Your task to perform on an android device: turn on priority inbox in the gmail app Image 0: 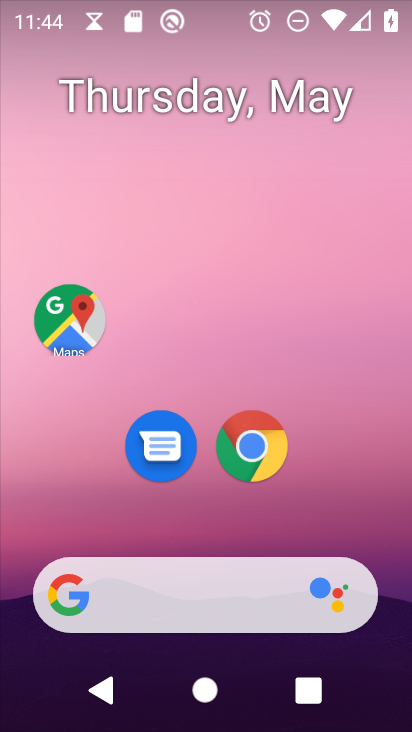
Step 0: drag from (217, 619) to (132, 354)
Your task to perform on an android device: turn on priority inbox in the gmail app Image 1: 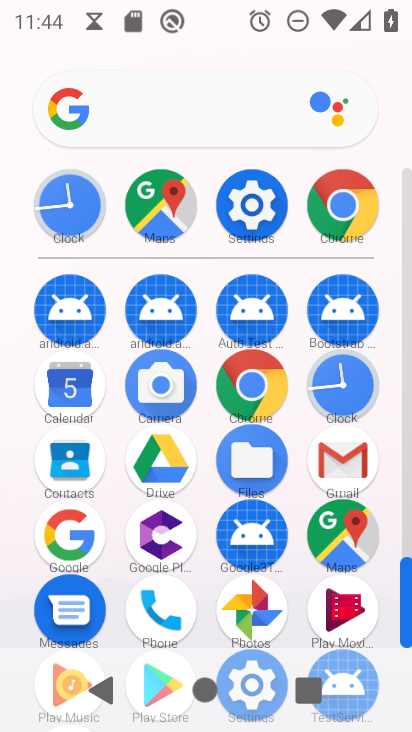
Step 1: click (352, 472)
Your task to perform on an android device: turn on priority inbox in the gmail app Image 2: 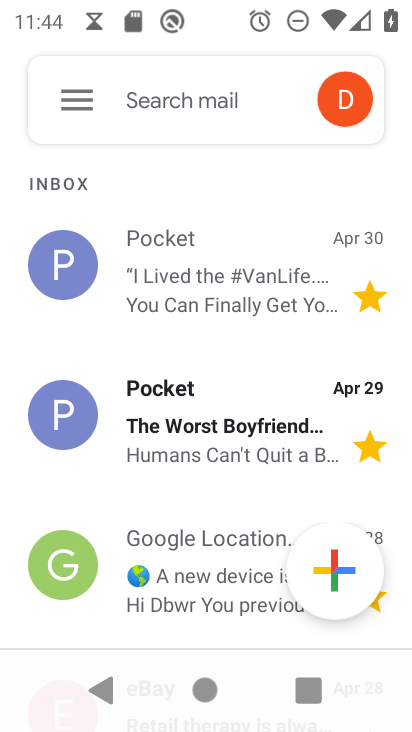
Step 2: click (72, 117)
Your task to perform on an android device: turn on priority inbox in the gmail app Image 3: 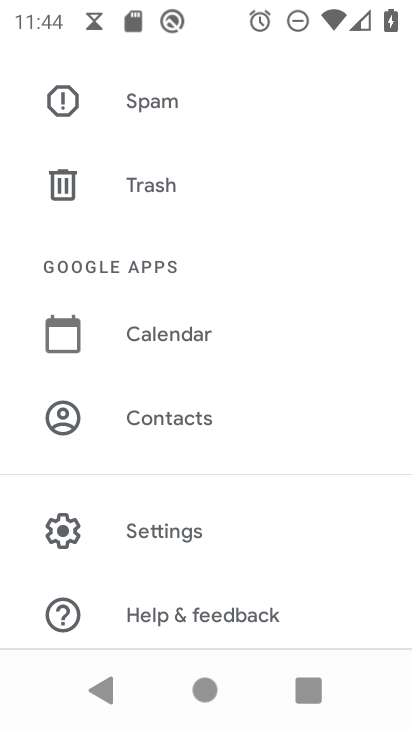
Step 3: click (165, 524)
Your task to perform on an android device: turn on priority inbox in the gmail app Image 4: 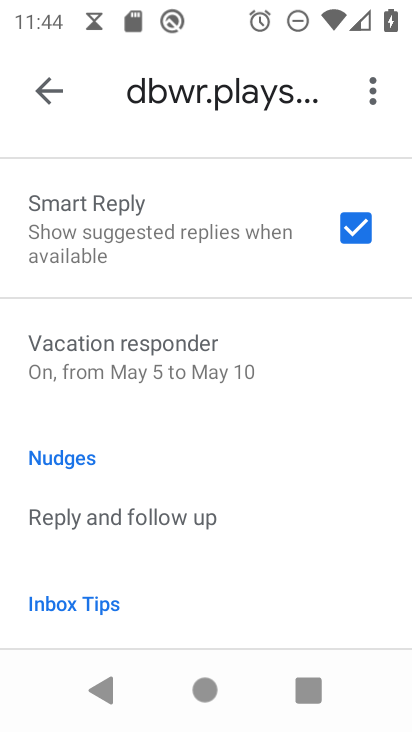
Step 4: drag from (141, 569) to (167, 701)
Your task to perform on an android device: turn on priority inbox in the gmail app Image 5: 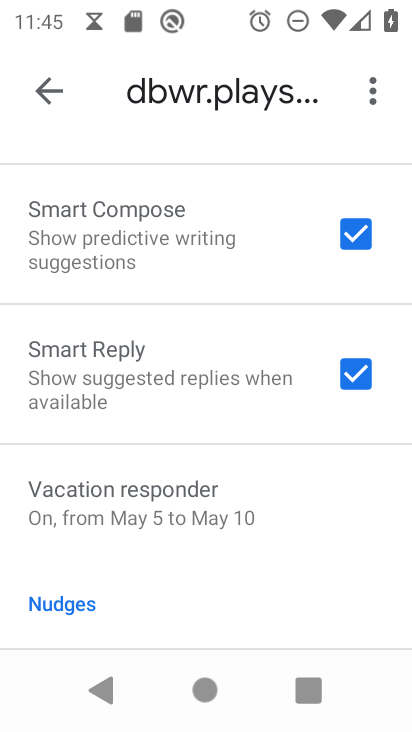
Step 5: drag from (198, 332) to (94, 621)
Your task to perform on an android device: turn on priority inbox in the gmail app Image 6: 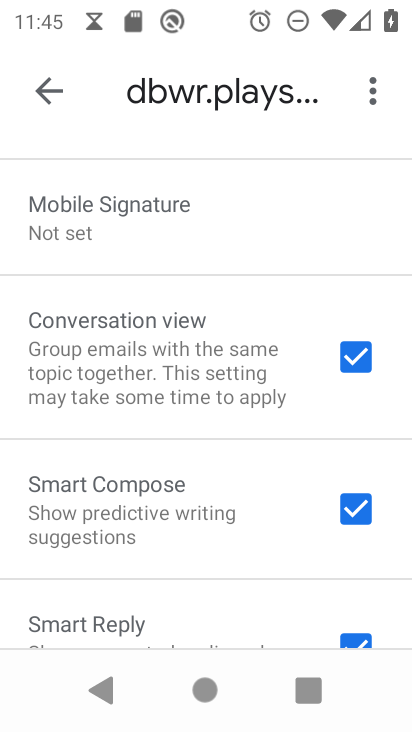
Step 6: drag from (158, 408) to (59, 716)
Your task to perform on an android device: turn on priority inbox in the gmail app Image 7: 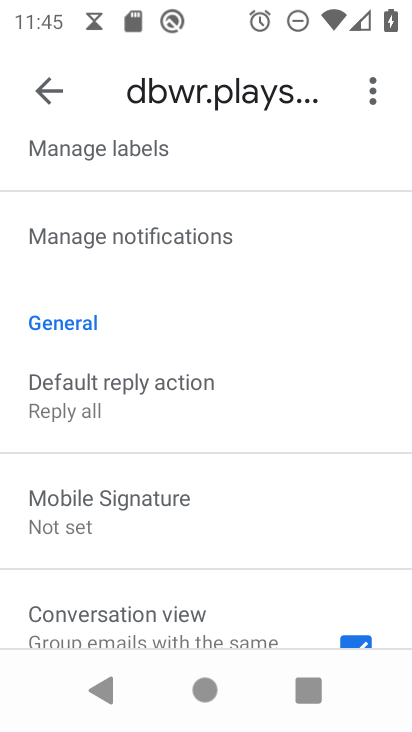
Step 7: drag from (91, 606) to (43, 731)
Your task to perform on an android device: turn on priority inbox in the gmail app Image 8: 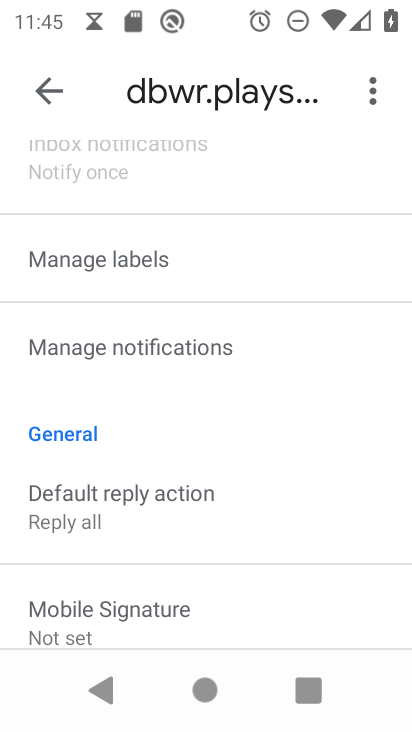
Step 8: drag from (174, 596) to (170, 711)
Your task to perform on an android device: turn on priority inbox in the gmail app Image 9: 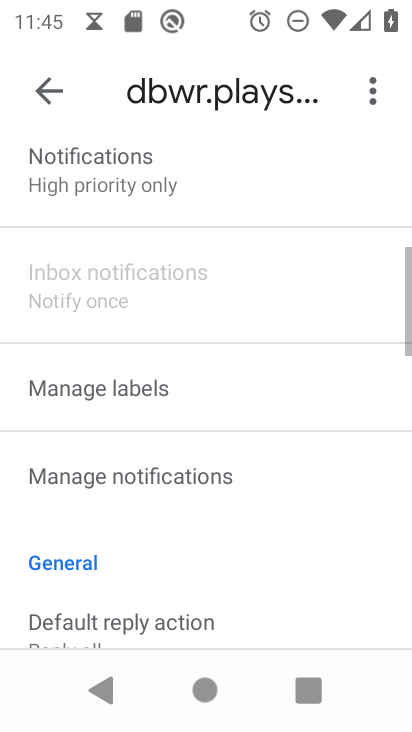
Step 9: drag from (201, 288) to (136, 611)
Your task to perform on an android device: turn on priority inbox in the gmail app Image 10: 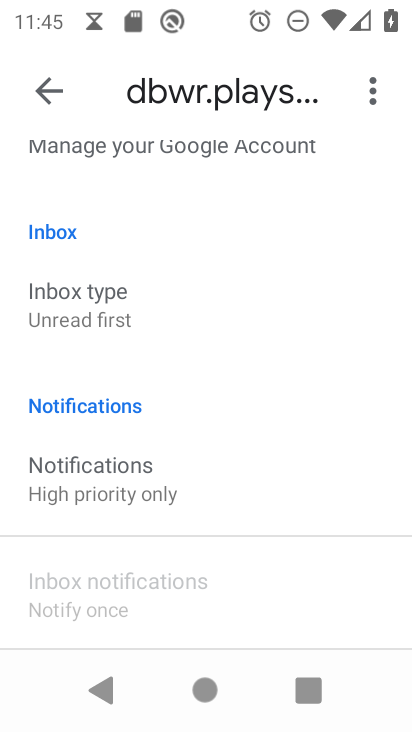
Step 10: drag from (185, 294) to (136, 522)
Your task to perform on an android device: turn on priority inbox in the gmail app Image 11: 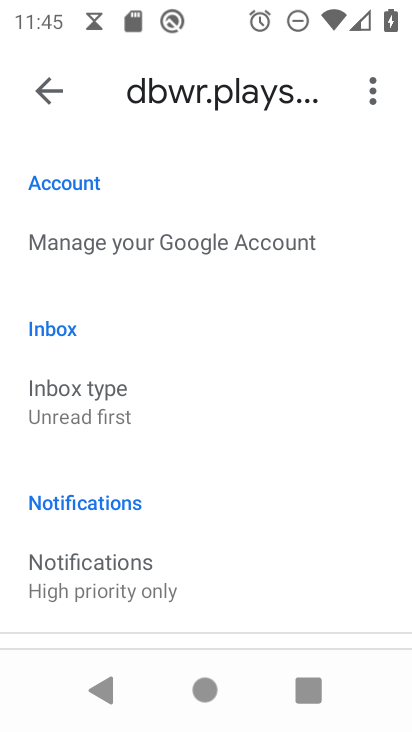
Step 11: drag from (159, 247) to (107, 477)
Your task to perform on an android device: turn on priority inbox in the gmail app Image 12: 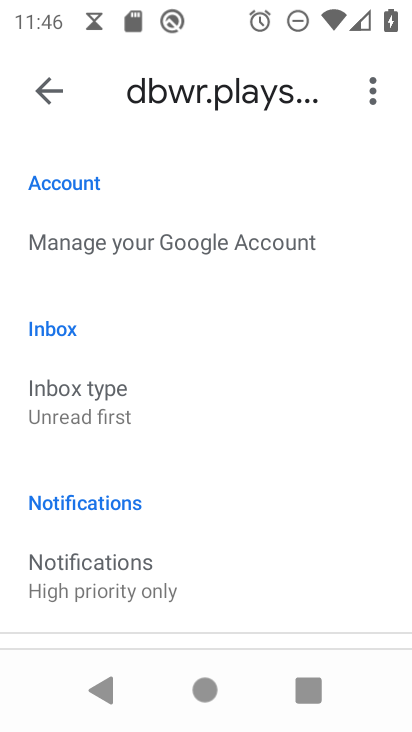
Step 12: click (95, 388)
Your task to perform on an android device: turn on priority inbox in the gmail app Image 13: 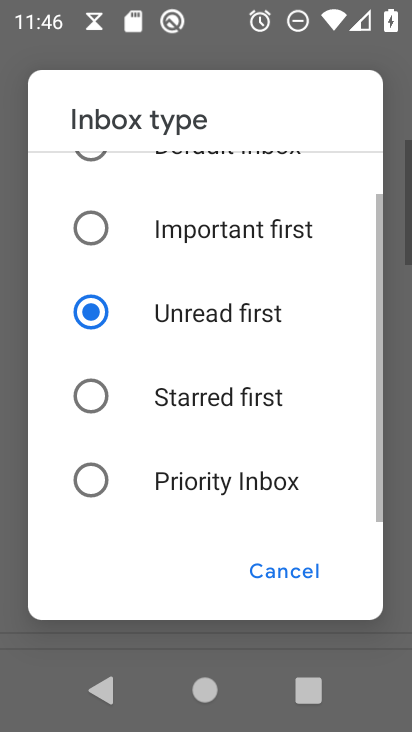
Step 13: click (162, 478)
Your task to perform on an android device: turn on priority inbox in the gmail app Image 14: 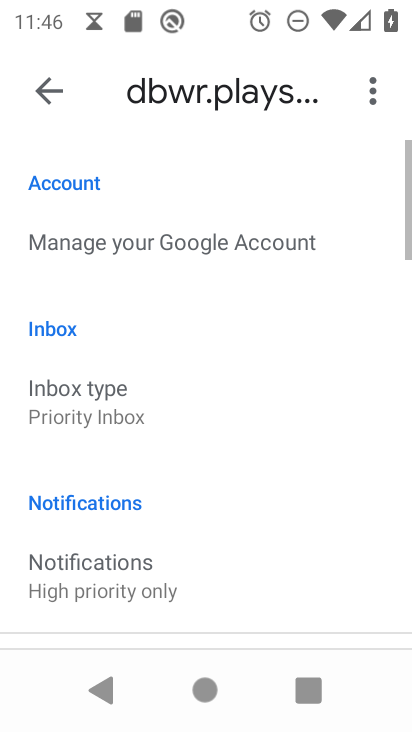
Step 14: task complete